Your task to perform on an android device: Open privacy settings Image 0: 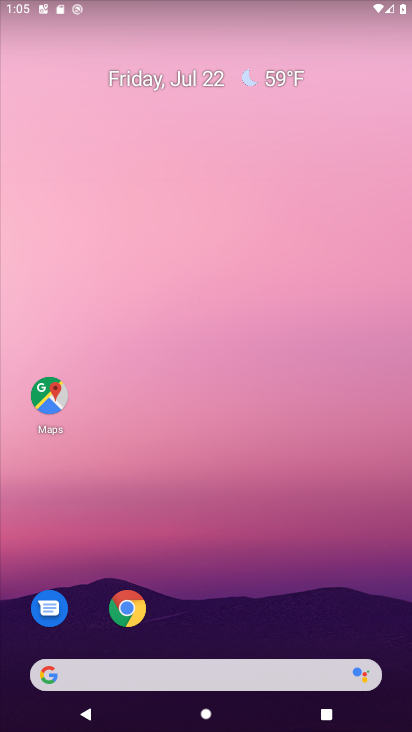
Step 0: drag from (196, 646) to (197, 0)
Your task to perform on an android device: Open privacy settings Image 1: 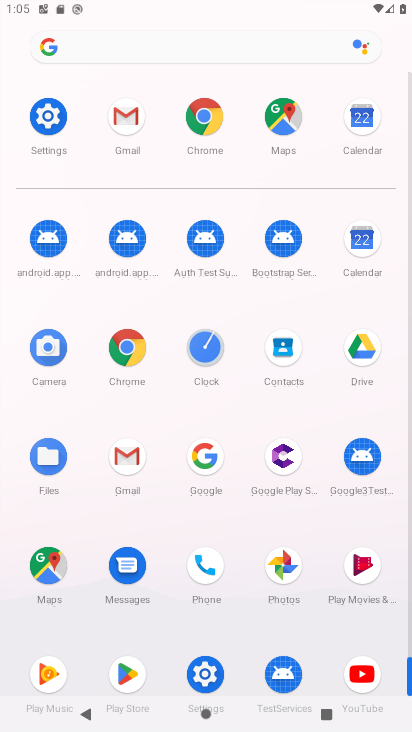
Step 1: click (217, 672)
Your task to perform on an android device: Open privacy settings Image 2: 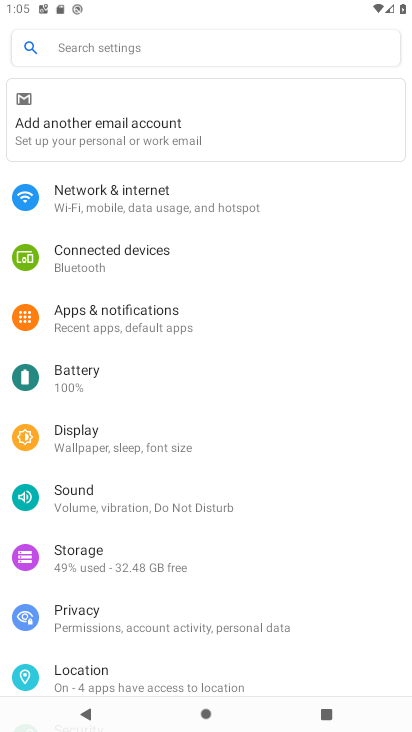
Step 2: drag from (144, 550) to (165, 307)
Your task to perform on an android device: Open privacy settings Image 3: 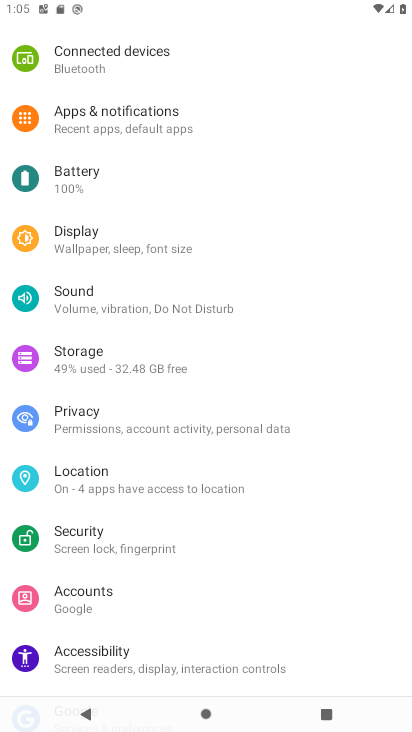
Step 3: click (106, 423)
Your task to perform on an android device: Open privacy settings Image 4: 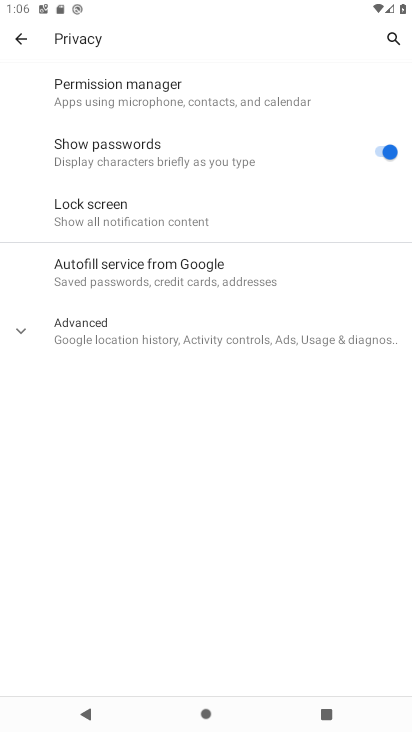
Step 4: task complete